Your task to perform on an android device: turn notification dots on Image 0: 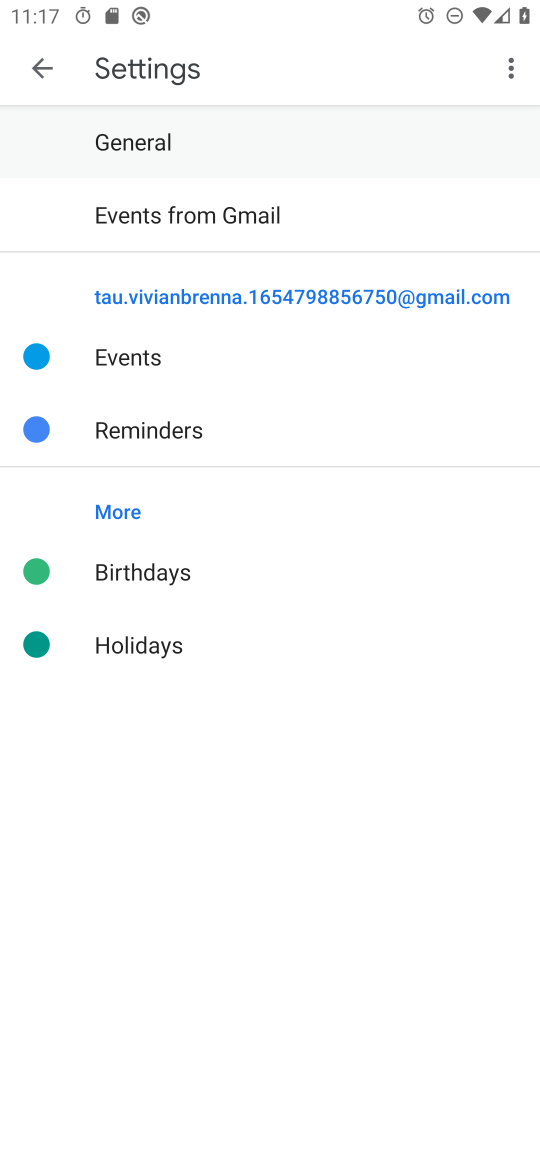
Step 0: press home button
Your task to perform on an android device: turn notification dots on Image 1: 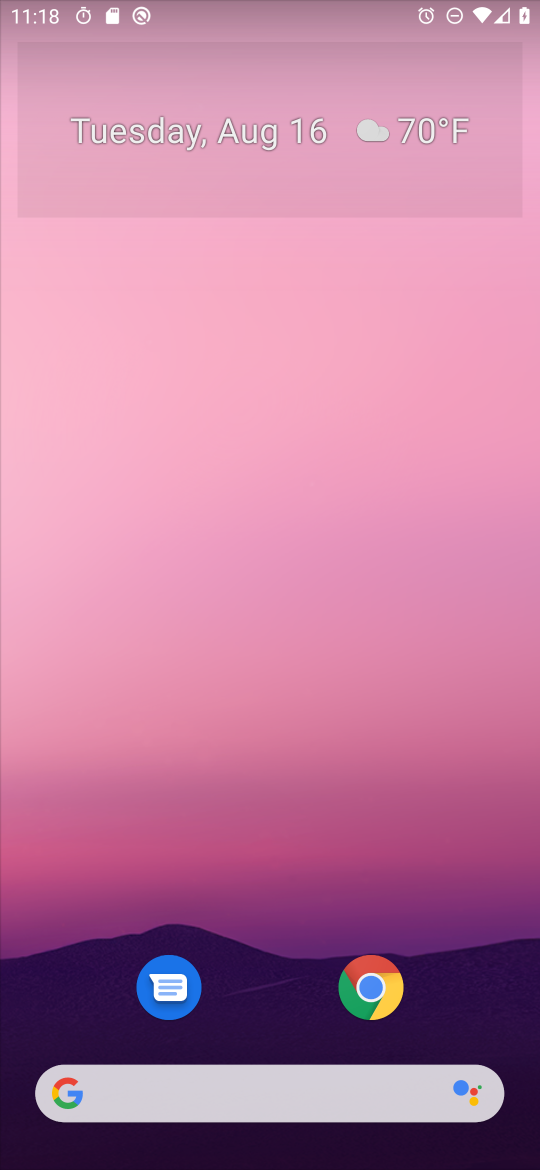
Step 1: drag from (13, 1127) to (231, 522)
Your task to perform on an android device: turn notification dots on Image 2: 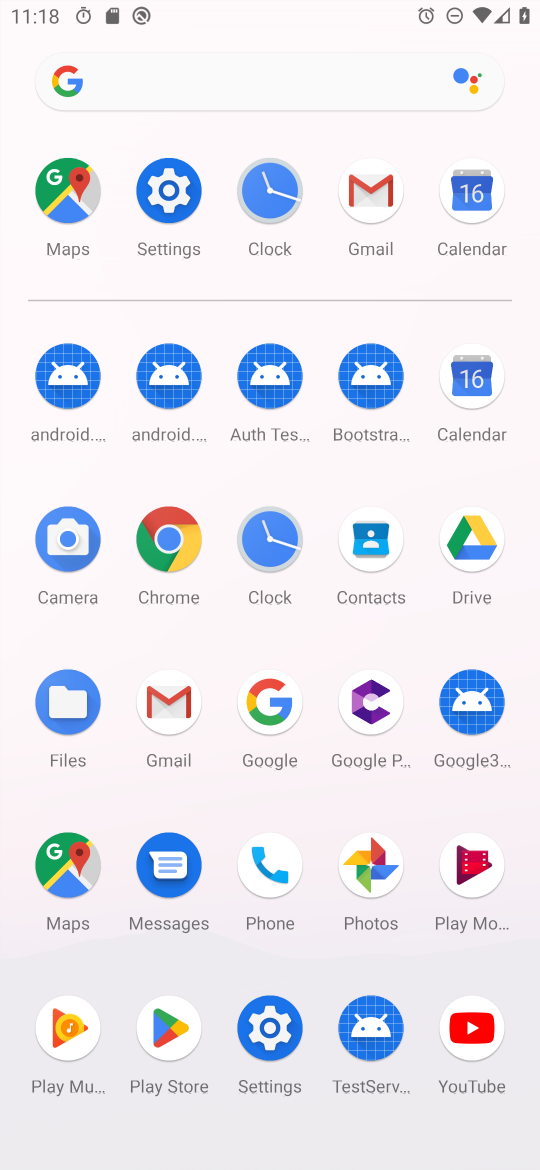
Step 2: click (265, 1023)
Your task to perform on an android device: turn notification dots on Image 3: 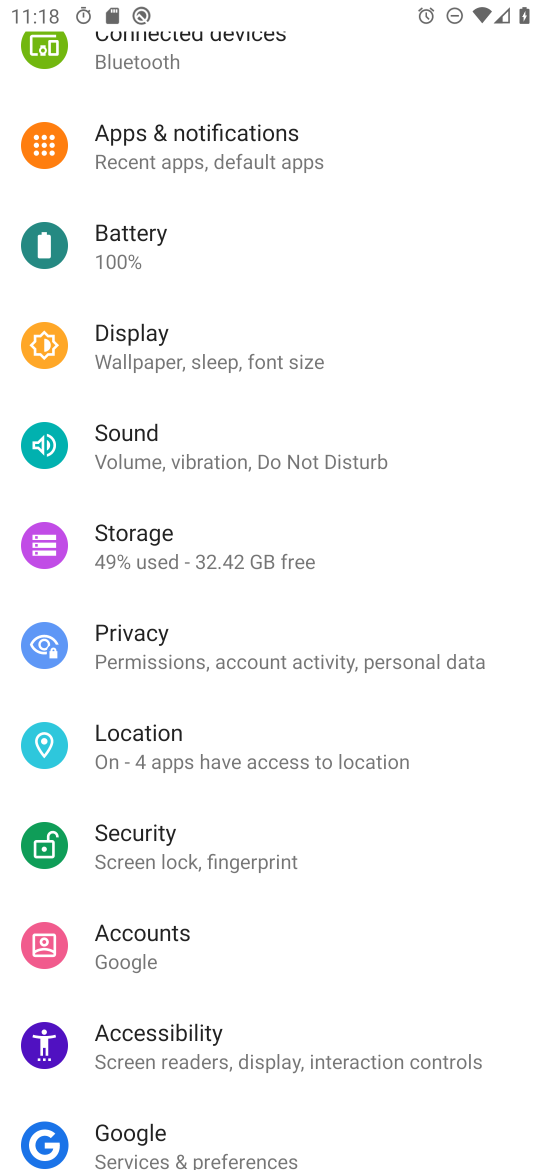
Step 3: click (243, 164)
Your task to perform on an android device: turn notification dots on Image 4: 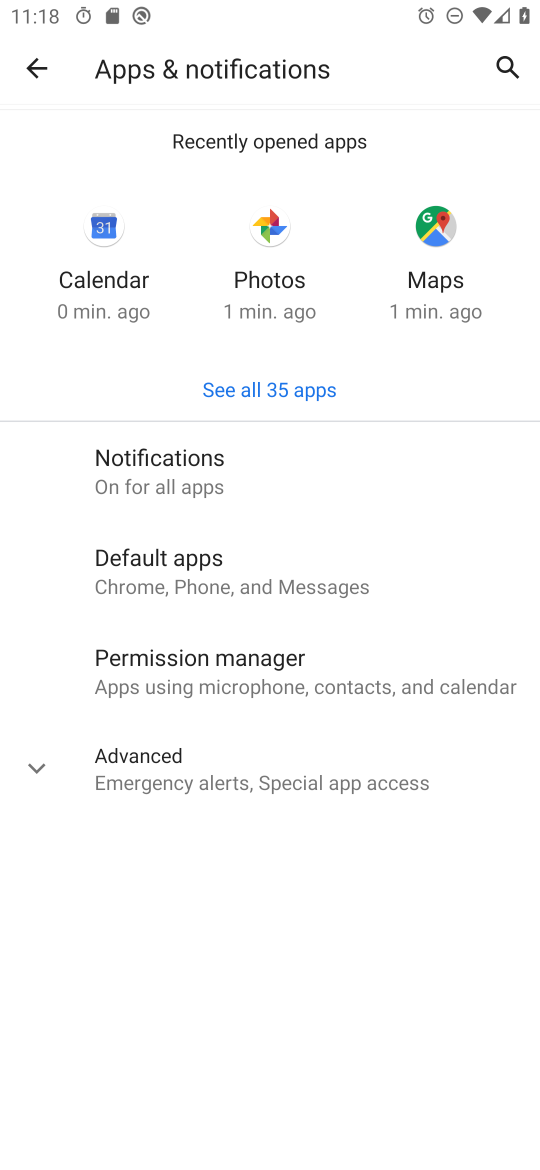
Step 4: click (161, 485)
Your task to perform on an android device: turn notification dots on Image 5: 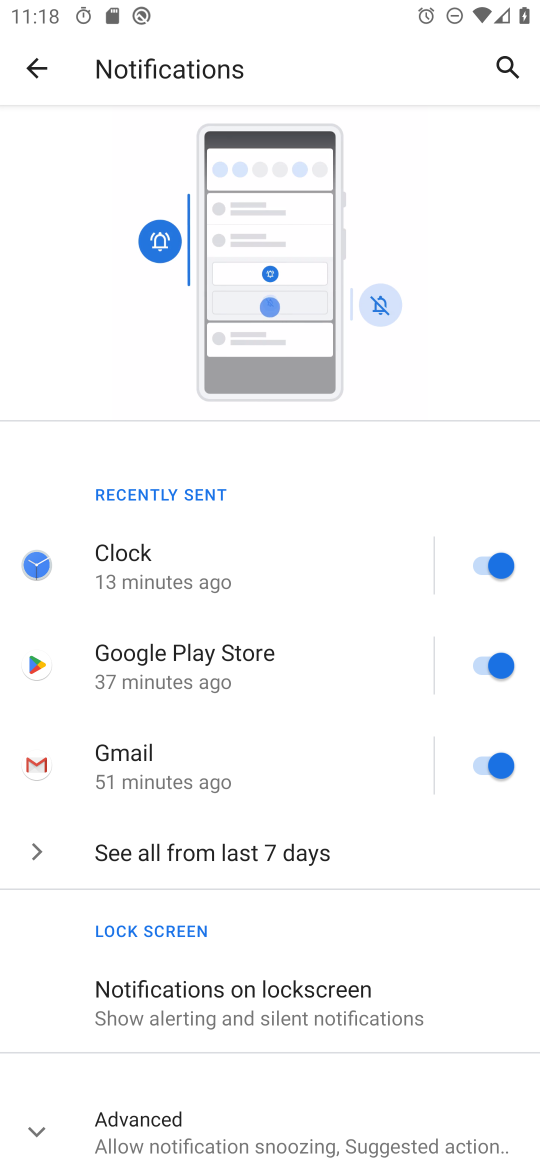
Step 5: click (231, 1121)
Your task to perform on an android device: turn notification dots on Image 6: 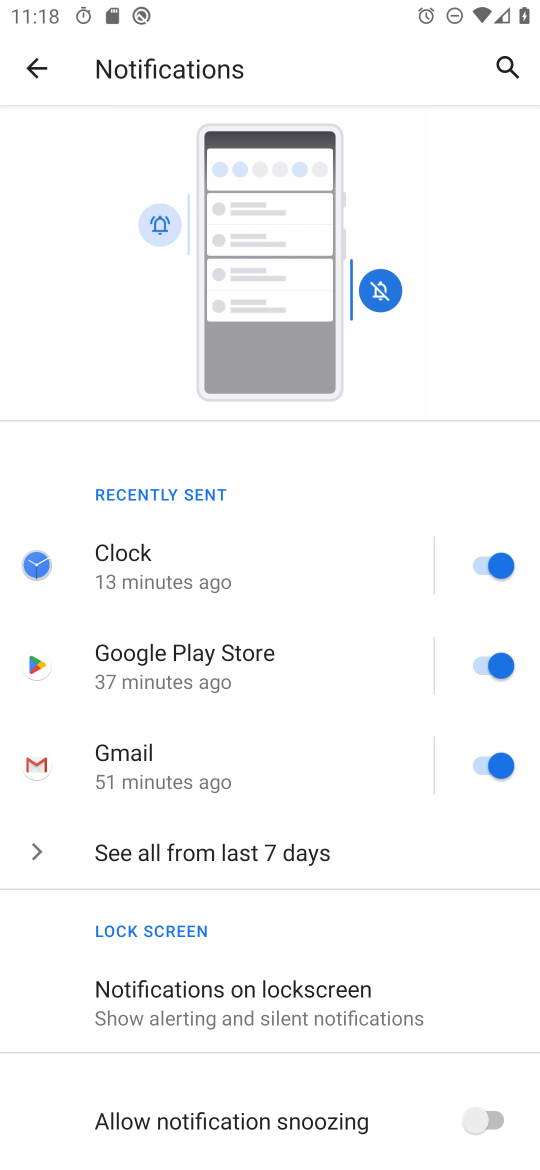
Step 6: task complete